Your task to perform on an android device: turn off wifi Image 0: 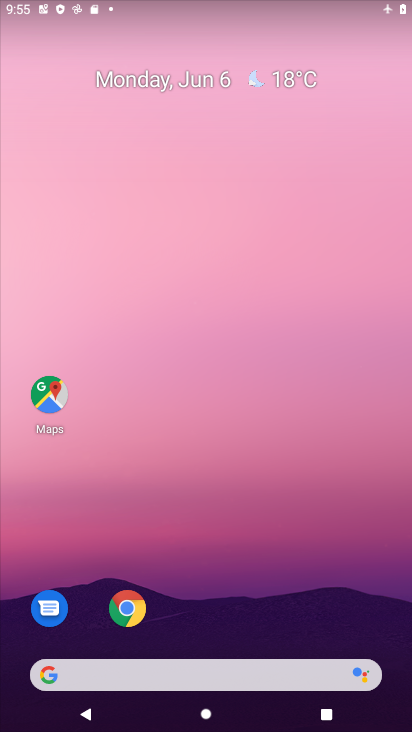
Step 0: drag from (242, 611) to (230, 55)
Your task to perform on an android device: turn off wifi Image 1: 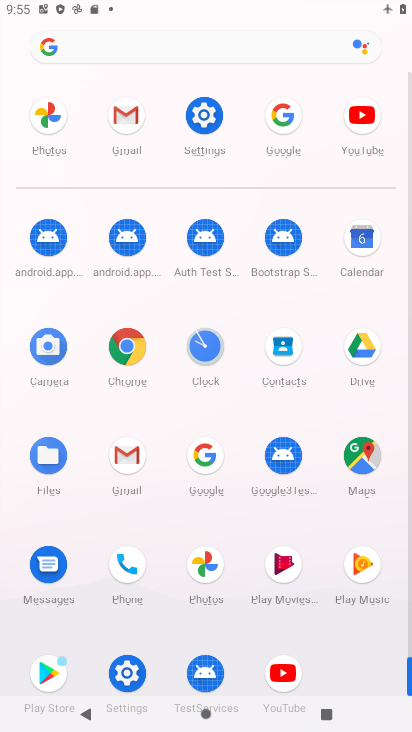
Step 1: click (205, 116)
Your task to perform on an android device: turn off wifi Image 2: 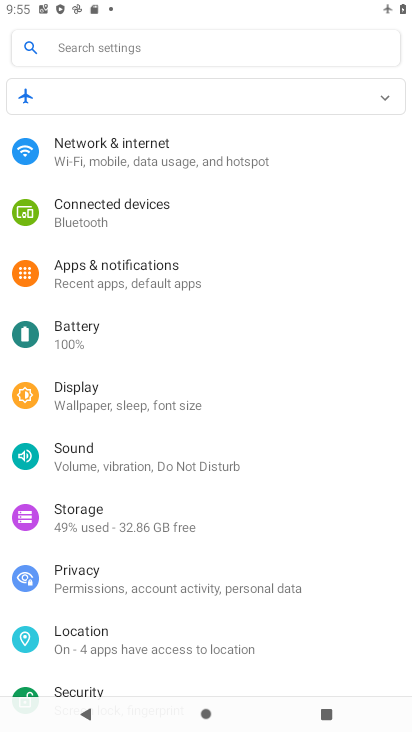
Step 2: click (204, 159)
Your task to perform on an android device: turn off wifi Image 3: 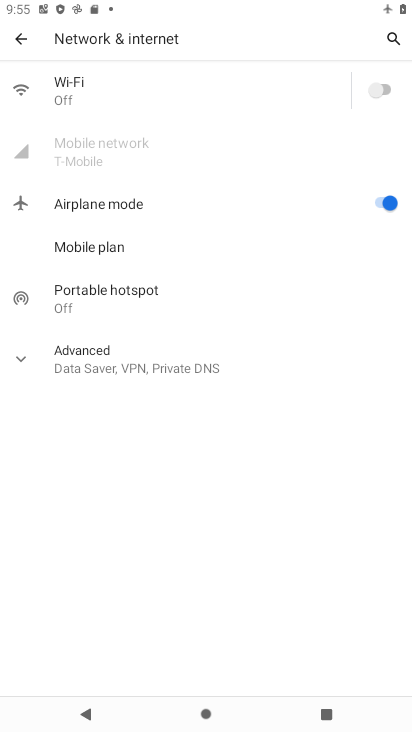
Step 3: task complete